Your task to perform on an android device: Open calendar and show me the third week of next month Image 0: 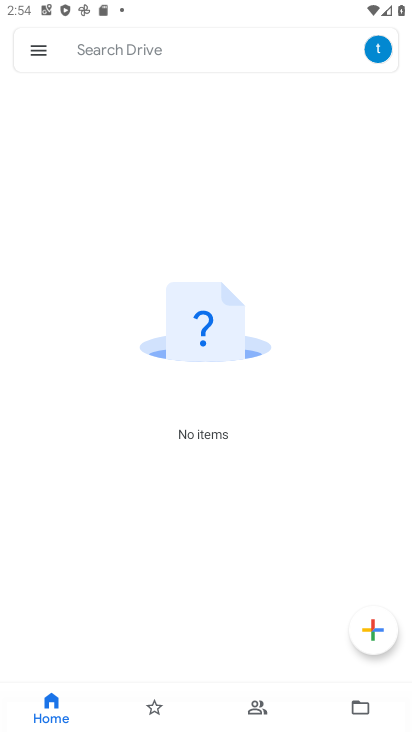
Step 0: press home button
Your task to perform on an android device: Open calendar and show me the third week of next month Image 1: 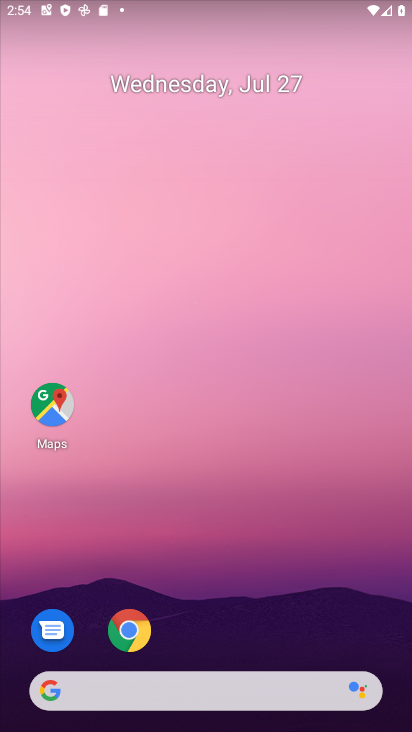
Step 1: drag from (401, 704) to (327, 125)
Your task to perform on an android device: Open calendar and show me the third week of next month Image 2: 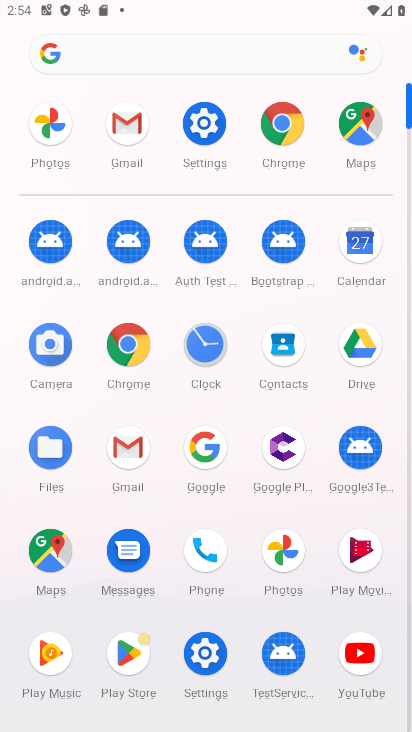
Step 2: click (357, 234)
Your task to perform on an android device: Open calendar and show me the third week of next month Image 3: 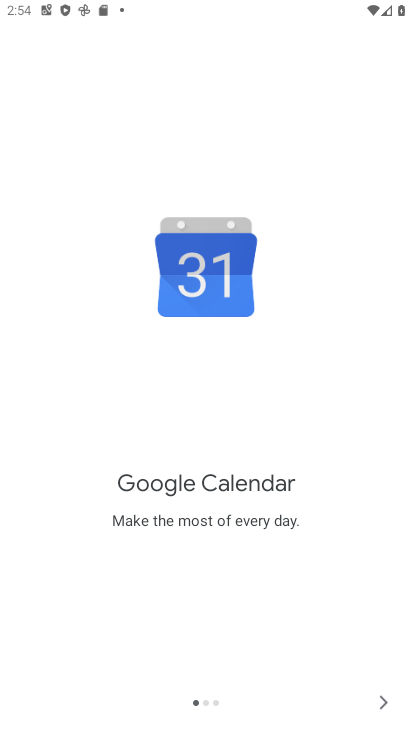
Step 3: click (380, 704)
Your task to perform on an android device: Open calendar and show me the third week of next month Image 4: 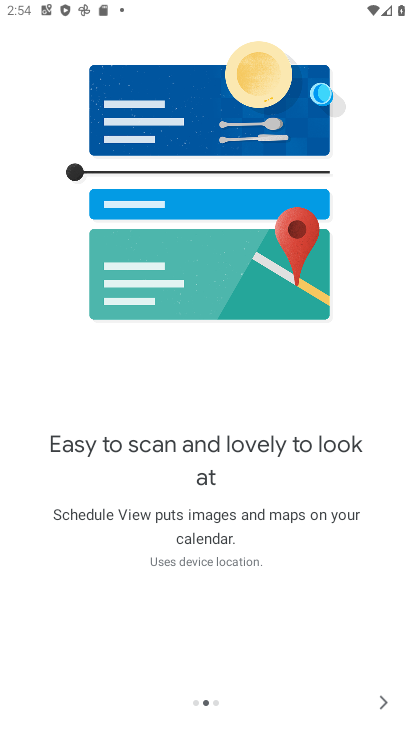
Step 4: click (383, 704)
Your task to perform on an android device: Open calendar and show me the third week of next month Image 5: 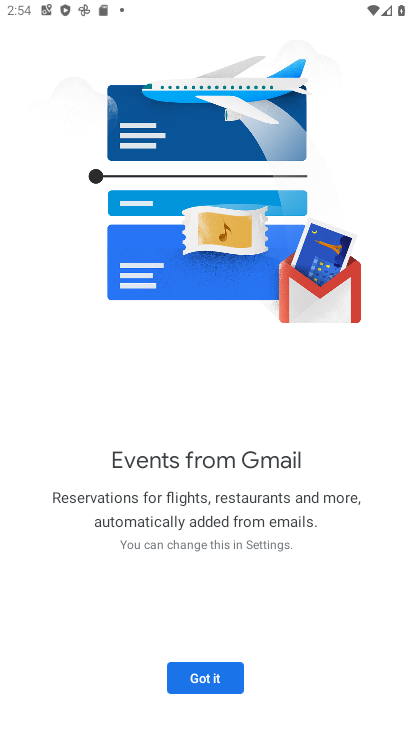
Step 5: click (383, 704)
Your task to perform on an android device: Open calendar and show me the third week of next month Image 6: 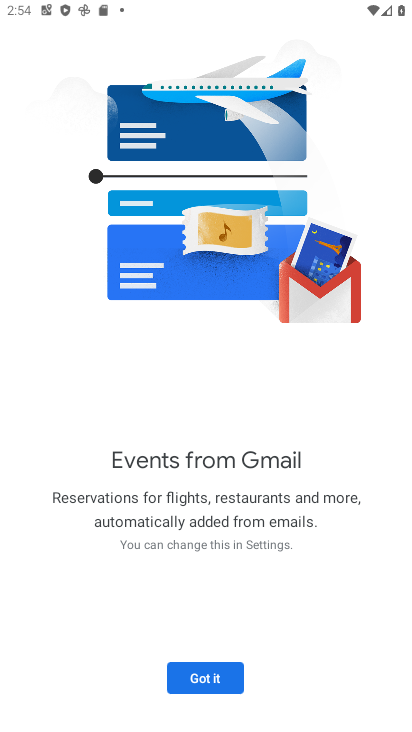
Step 6: click (200, 679)
Your task to perform on an android device: Open calendar and show me the third week of next month Image 7: 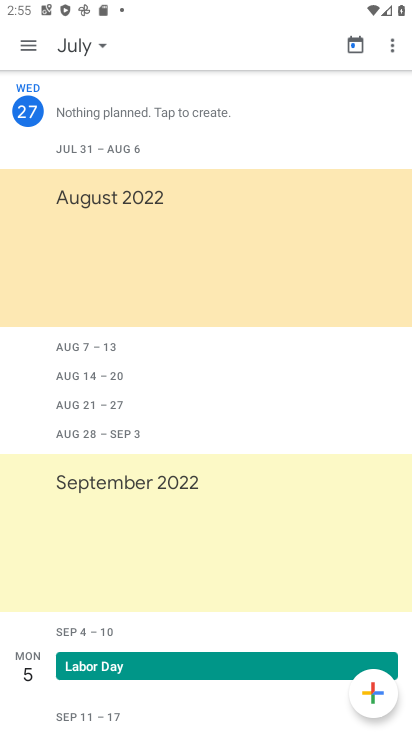
Step 7: click (104, 40)
Your task to perform on an android device: Open calendar and show me the third week of next month Image 8: 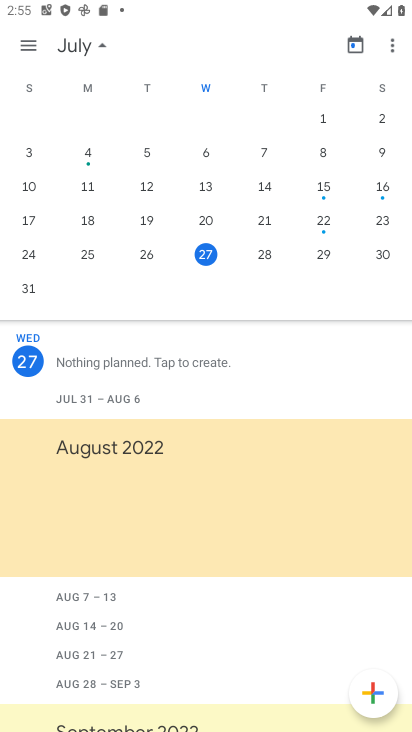
Step 8: drag from (387, 197) to (46, 167)
Your task to perform on an android device: Open calendar and show me the third week of next month Image 9: 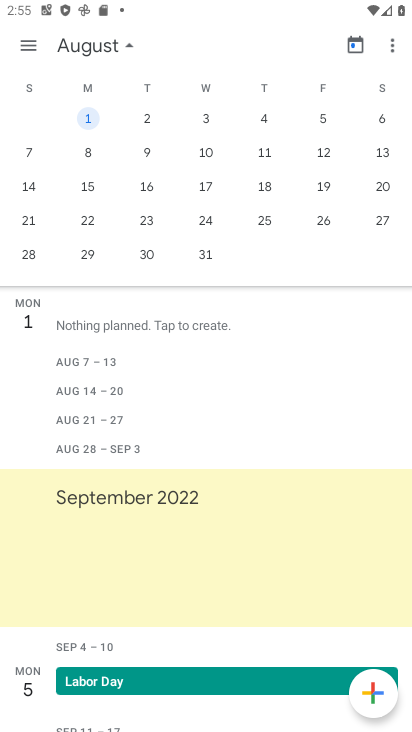
Step 9: click (265, 184)
Your task to perform on an android device: Open calendar and show me the third week of next month Image 10: 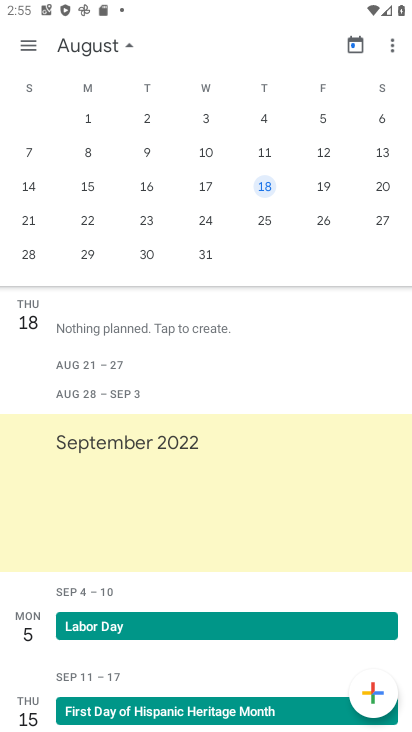
Step 10: click (32, 41)
Your task to perform on an android device: Open calendar and show me the third week of next month Image 11: 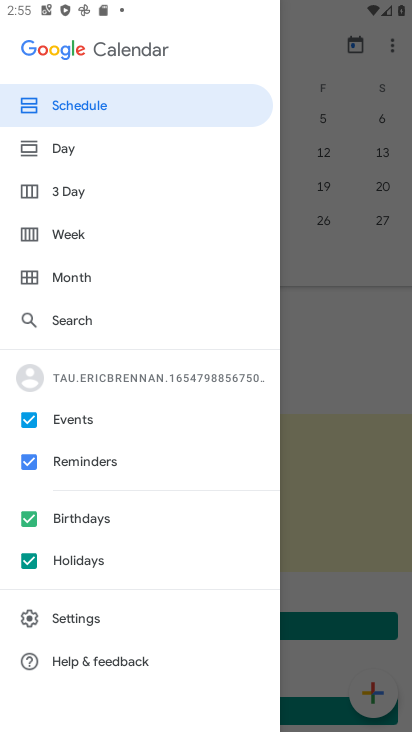
Step 11: click (66, 229)
Your task to perform on an android device: Open calendar and show me the third week of next month Image 12: 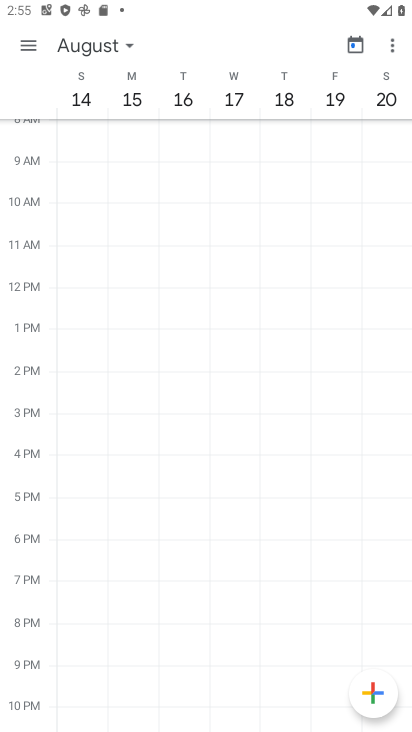
Step 12: click (17, 38)
Your task to perform on an android device: Open calendar and show me the third week of next month Image 13: 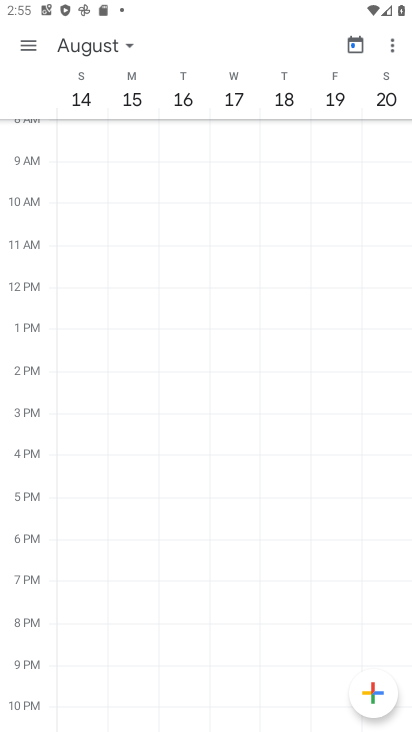
Step 13: click (33, 45)
Your task to perform on an android device: Open calendar and show me the third week of next month Image 14: 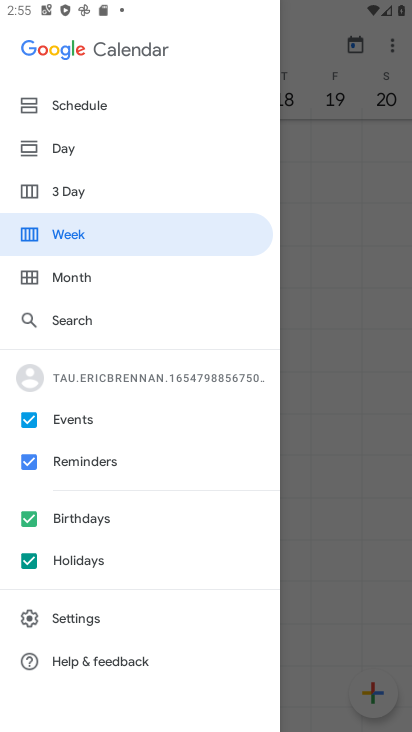
Step 14: click (67, 106)
Your task to perform on an android device: Open calendar and show me the third week of next month Image 15: 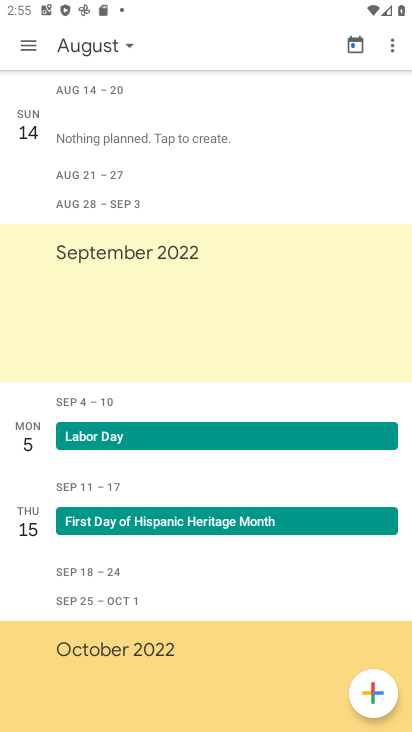
Step 15: task complete